Your task to perform on an android device: Open Android settings Image 0: 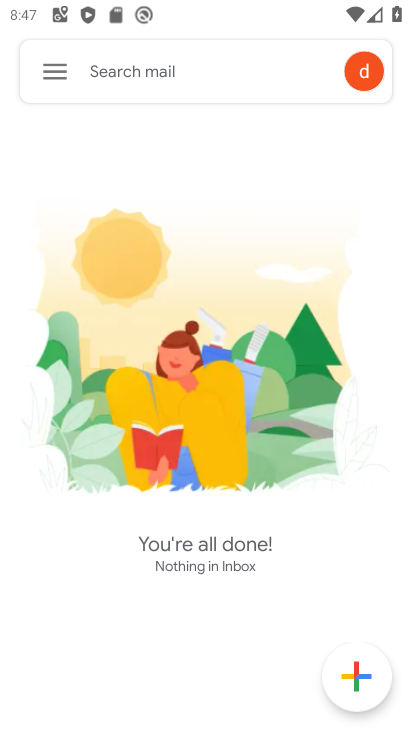
Step 0: press home button
Your task to perform on an android device: Open Android settings Image 1: 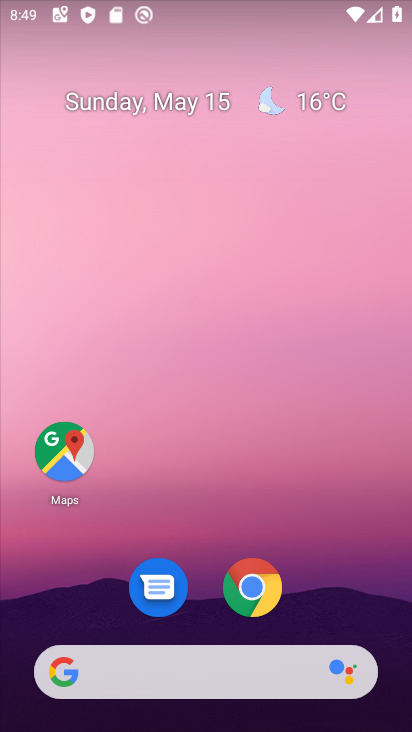
Step 1: drag from (369, 545) to (159, 88)
Your task to perform on an android device: Open Android settings Image 2: 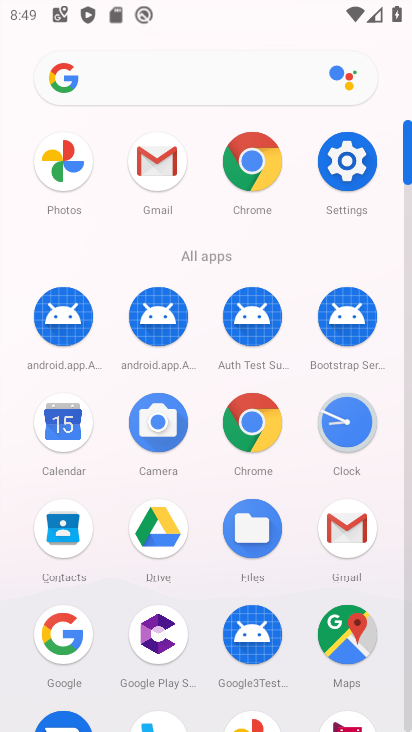
Step 2: click (350, 155)
Your task to perform on an android device: Open Android settings Image 3: 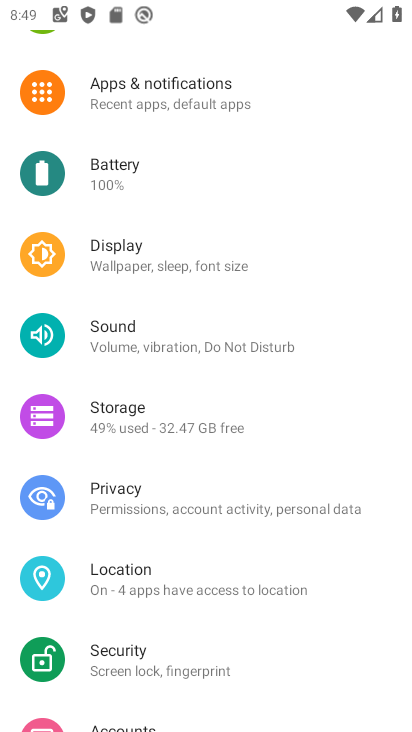
Step 3: task complete